Your task to perform on an android device: Show me popular videos on Youtube Image 0: 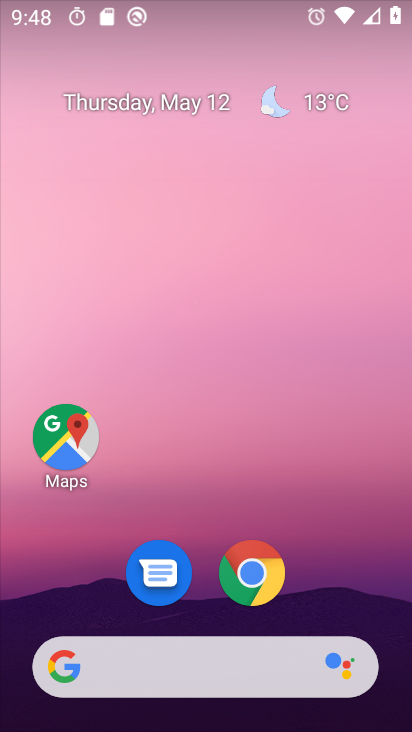
Step 0: drag from (390, 483) to (373, 381)
Your task to perform on an android device: Show me popular videos on Youtube Image 1: 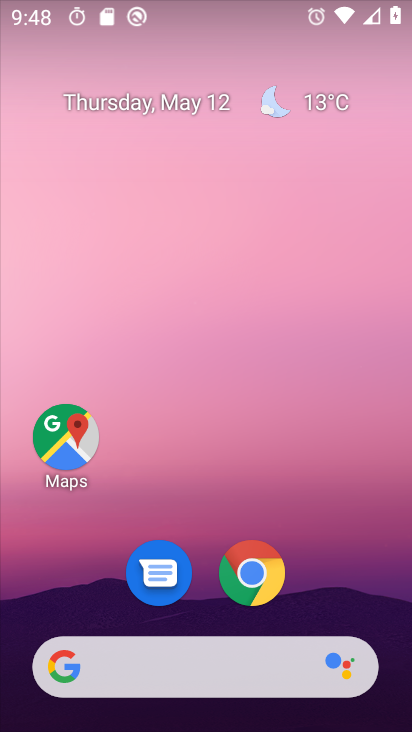
Step 1: drag from (400, 675) to (392, 370)
Your task to perform on an android device: Show me popular videos on Youtube Image 2: 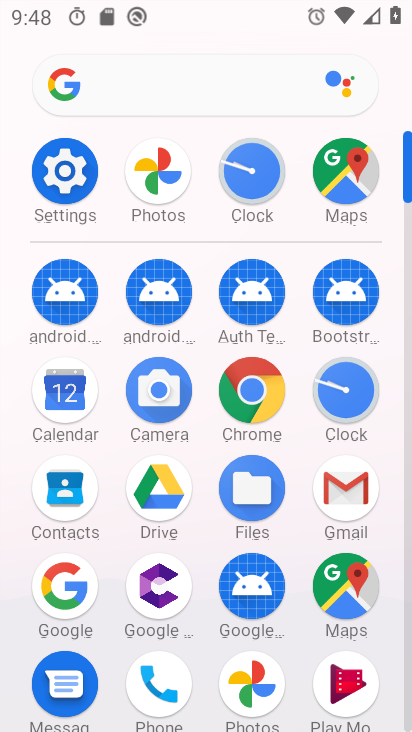
Step 2: drag from (412, 219) to (411, 129)
Your task to perform on an android device: Show me popular videos on Youtube Image 3: 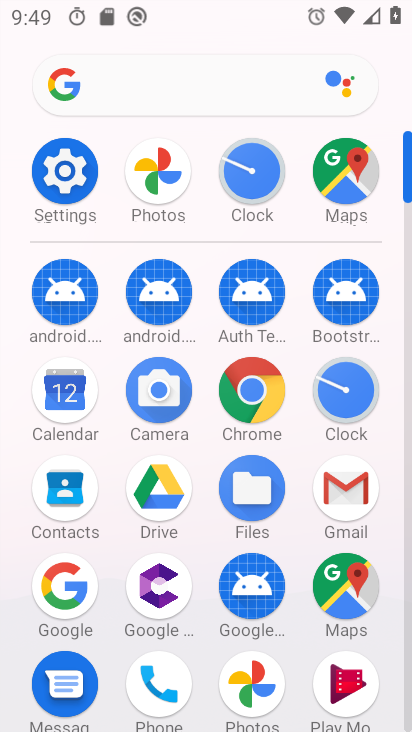
Step 3: click (403, 132)
Your task to perform on an android device: Show me popular videos on Youtube Image 4: 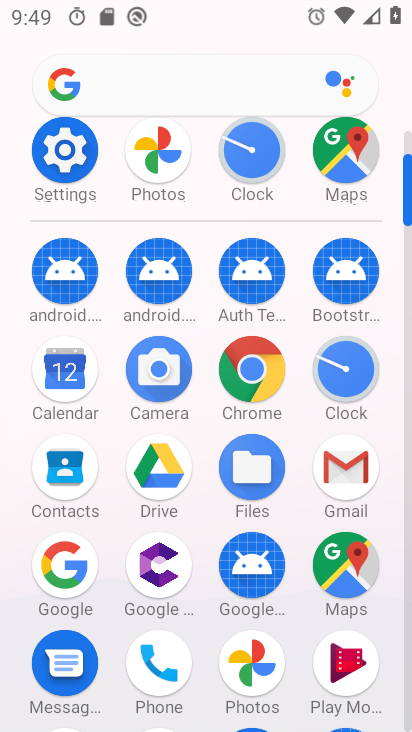
Step 4: drag from (412, 156) to (409, 99)
Your task to perform on an android device: Show me popular videos on Youtube Image 5: 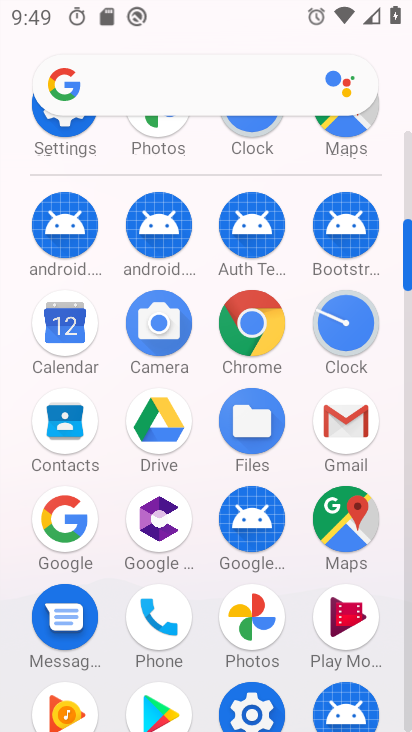
Step 5: drag from (411, 227) to (410, 129)
Your task to perform on an android device: Show me popular videos on Youtube Image 6: 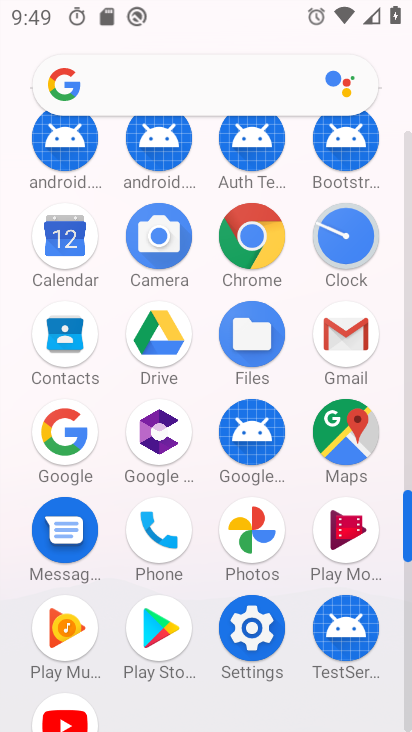
Step 6: click (76, 699)
Your task to perform on an android device: Show me popular videos on Youtube Image 7: 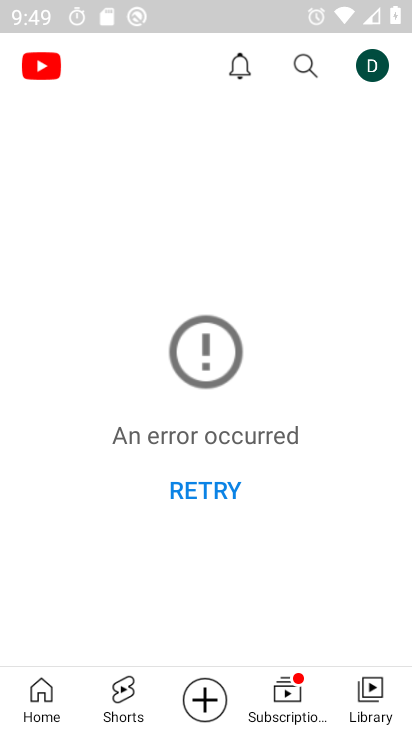
Step 7: task complete